Your task to perform on an android device: toggle improve location accuracy Image 0: 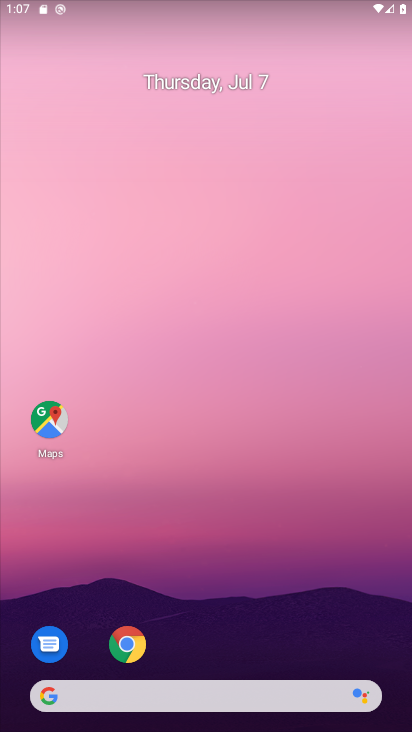
Step 0: drag from (269, 621) to (244, 147)
Your task to perform on an android device: toggle improve location accuracy Image 1: 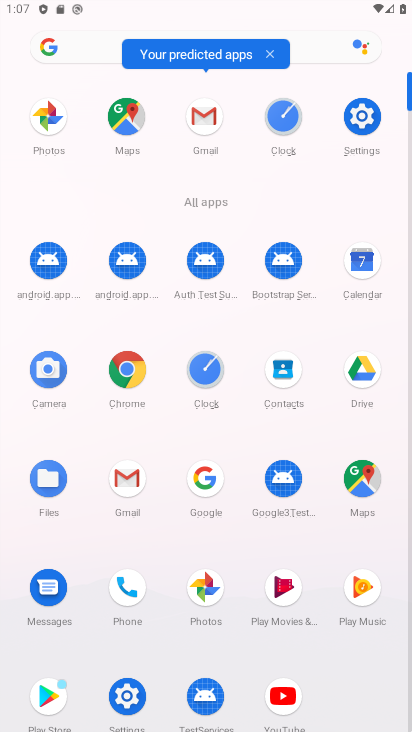
Step 1: click (371, 126)
Your task to perform on an android device: toggle improve location accuracy Image 2: 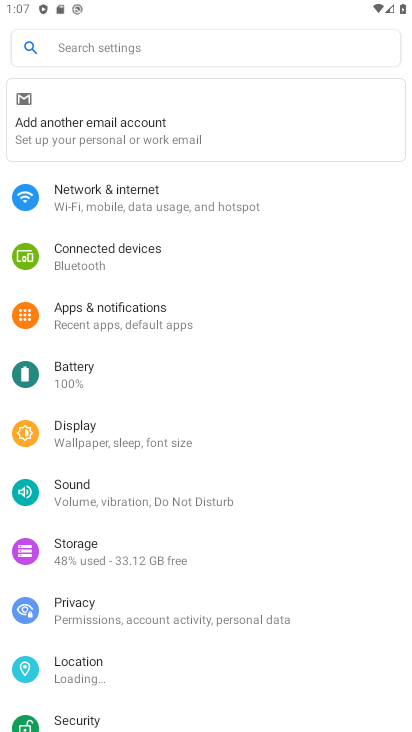
Step 2: click (138, 659)
Your task to perform on an android device: toggle improve location accuracy Image 3: 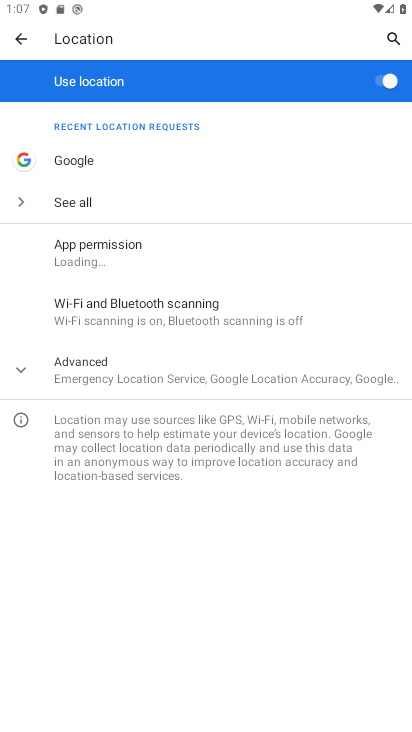
Step 3: click (216, 366)
Your task to perform on an android device: toggle improve location accuracy Image 4: 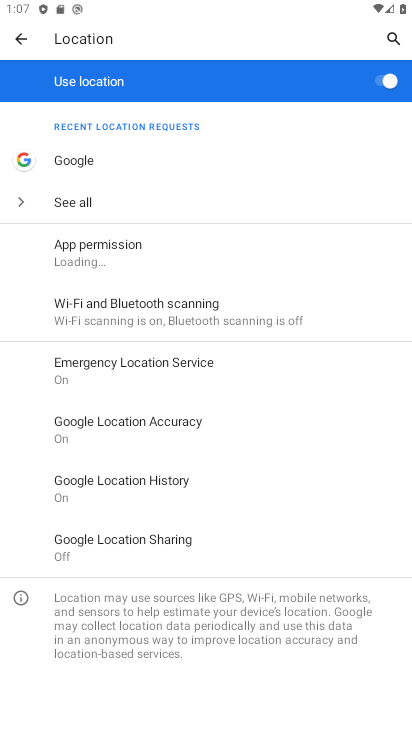
Step 4: click (197, 441)
Your task to perform on an android device: toggle improve location accuracy Image 5: 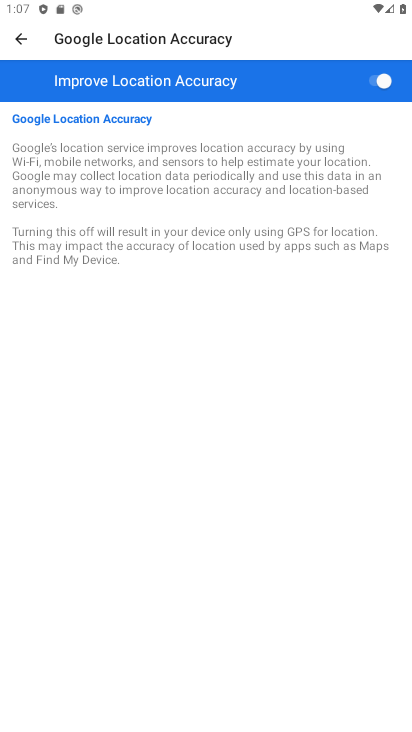
Step 5: click (377, 89)
Your task to perform on an android device: toggle improve location accuracy Image 6: 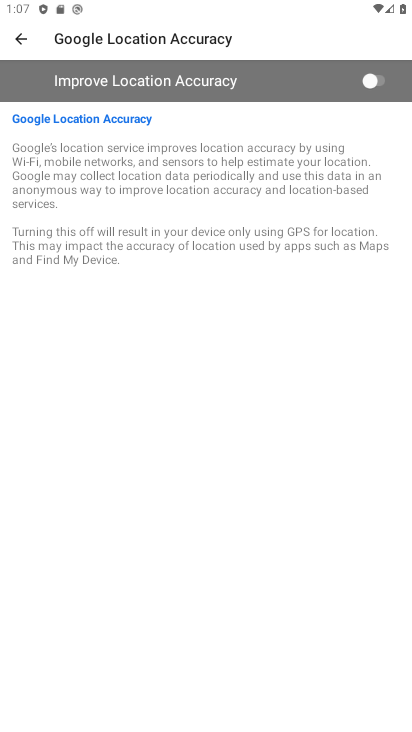
Step 6: task complete